Your task to perform on an android device: Go to settings Image 0: 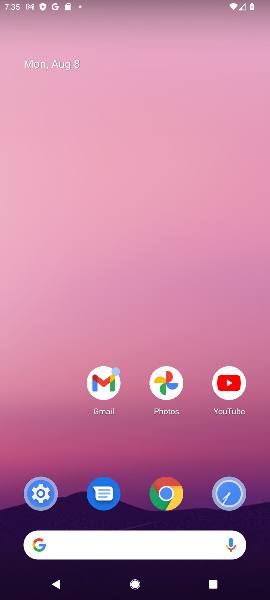
Step 0: click (53, 483)
Your task to perform on an android device: Go to settings Image 1: 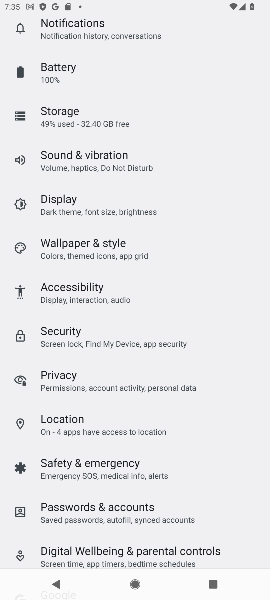
Step 1: task complete